Your task to perform on an android device: turn notification dots off Image 0: 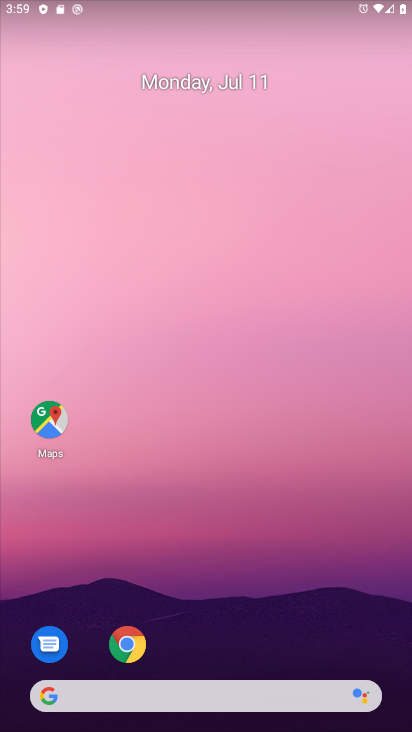
Step 0: drag from (302, 571) to (231, 259)
Your task to perform on an android device: turn notification dots off Image 1: 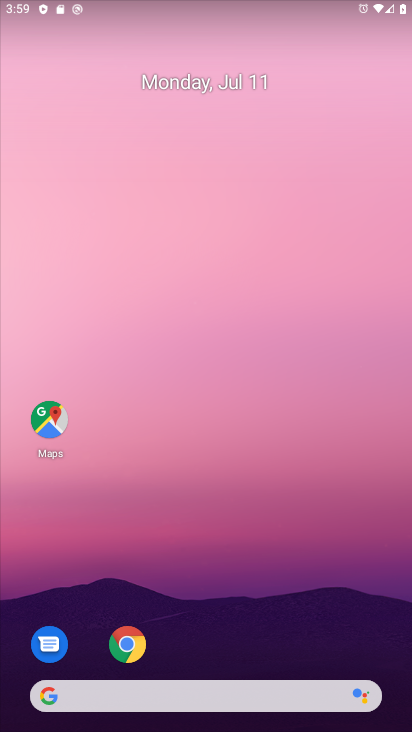
Step 1: drag from (192, 654) to (138, 0)
Your task to perform on an android device: turn notification dots off Image 2: 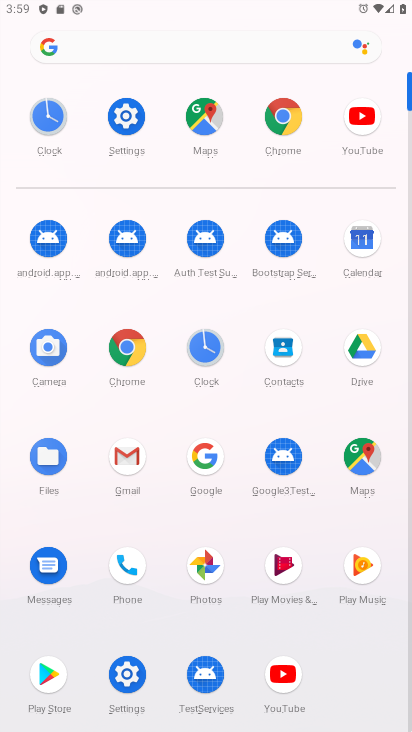
Step 2: click (129, 136)
Your task to perform on an android device: turn notification dots off Image 3: 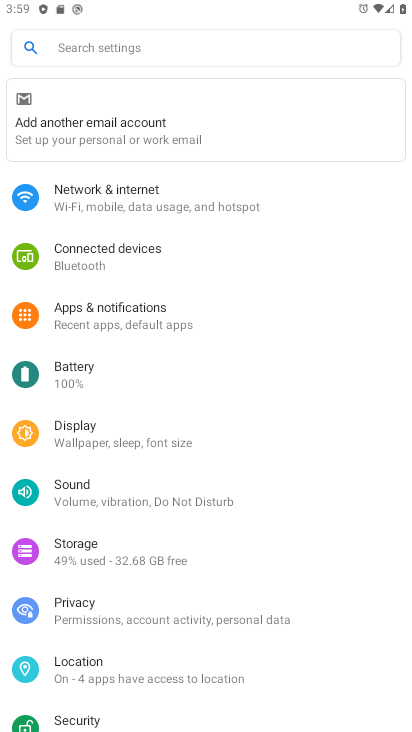
Step 3: click (160, 312)
Your task to perform on an android device: turn notification dots off Image 4: 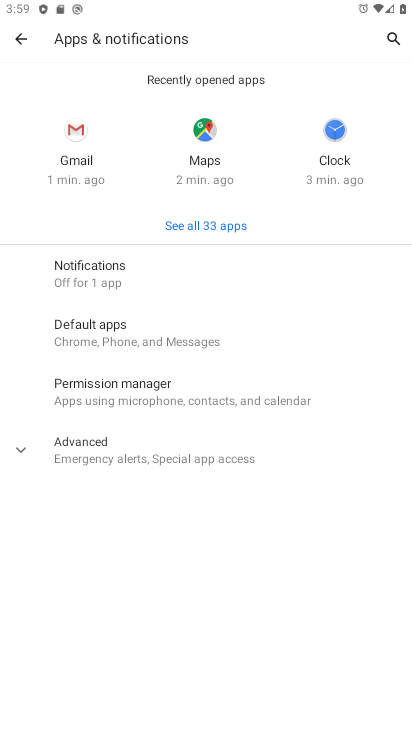
Step 4: click (34, 457)
Your task to perform on an android device: turn notification dots off Image 5: 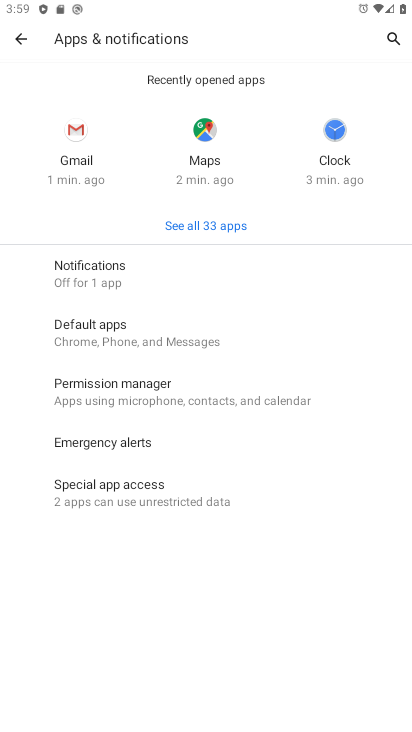
Step 5: click (99, 278)
Your task to perform on an android device: turn notification dots off Image 6: 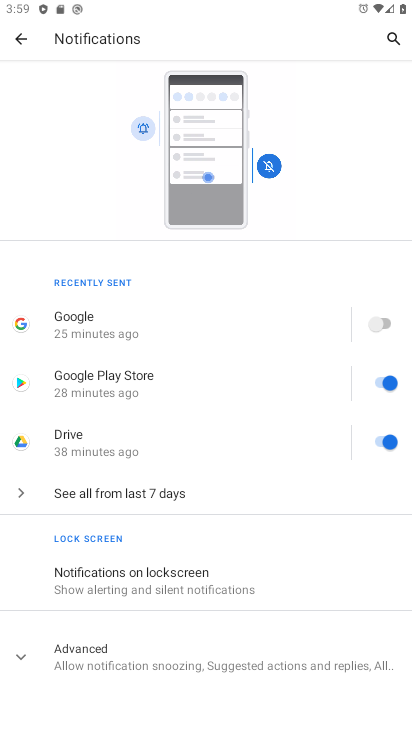
Step 6: drag from (271, 626) to (224, 316)
Your task to perform on an android device: turn notification dots off Image 7: 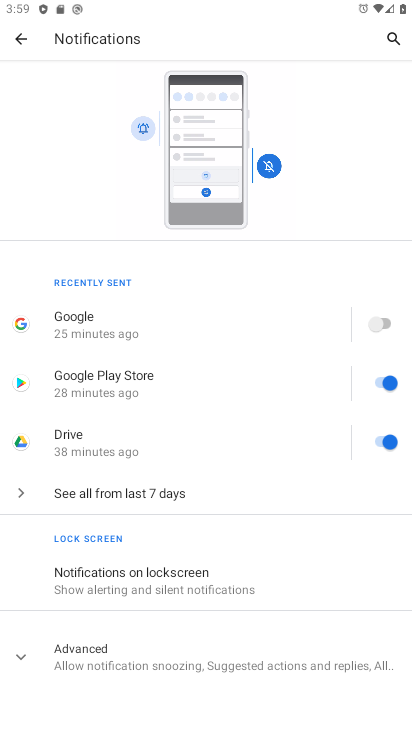
Step 7: click (27, 648)
Your task to perform on an android device: turn notification dots off Image 8: 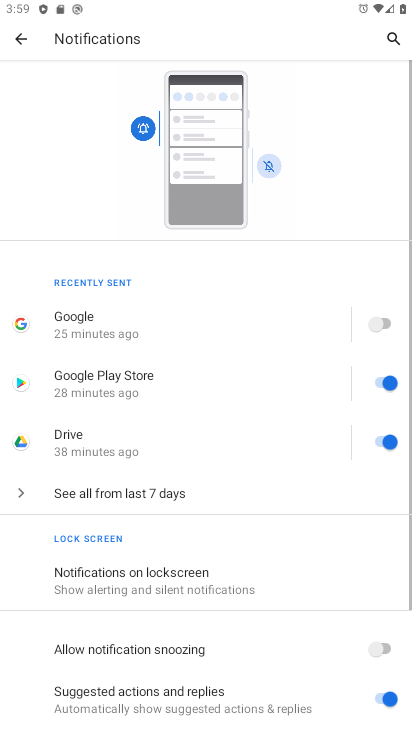
Step 8: task complete